Your task to perform on an android device: Go to accessibility settings Image 0: 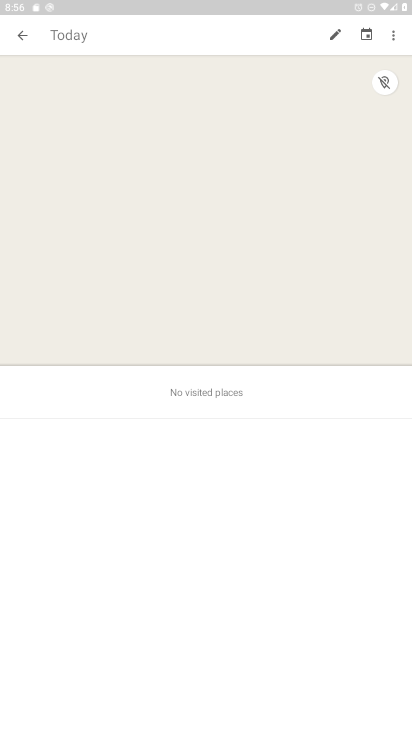
Step 0: press home button
Your task to perform on an android device: Go to accessibility settings Image 1: 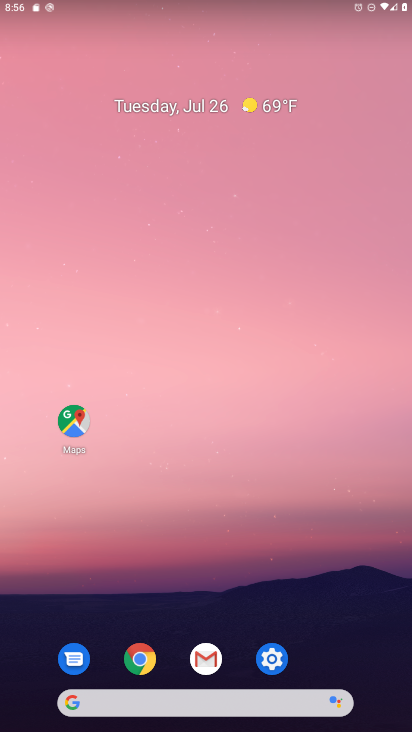
Step 1: drag from (265, 636) to (189, 111)
Your task to perform on an android device: Go to accessibility settings Image 2: 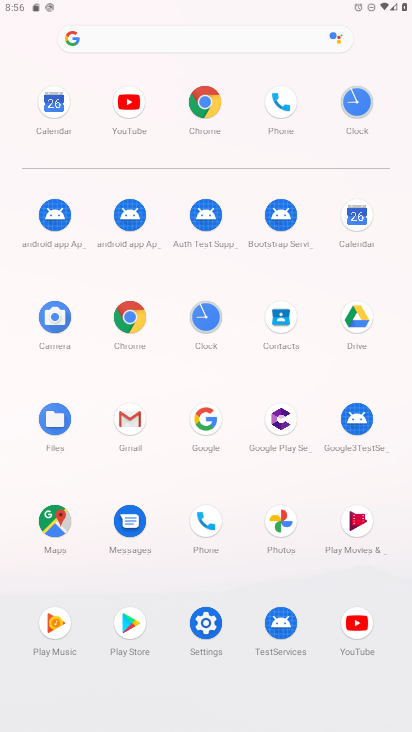
Step 2: click (205, 631)
Your task to perform on an android device: Go to accessibility settings Image 3: 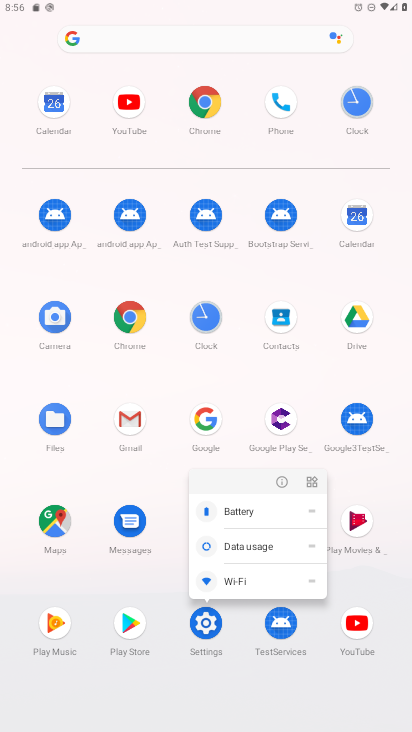
Step 3: click (208, 624)
Your task to perform on an android device: Go to accessibility settings Image 4: 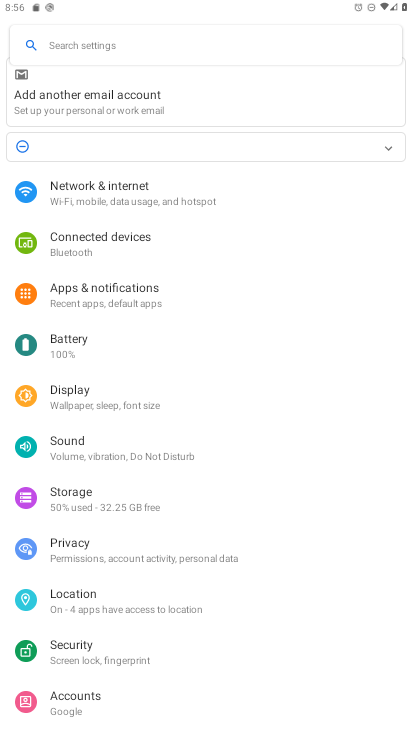
Step 4: click (97, 45)
Your task to perform on an android device: Go to accessibility settings Image 5: 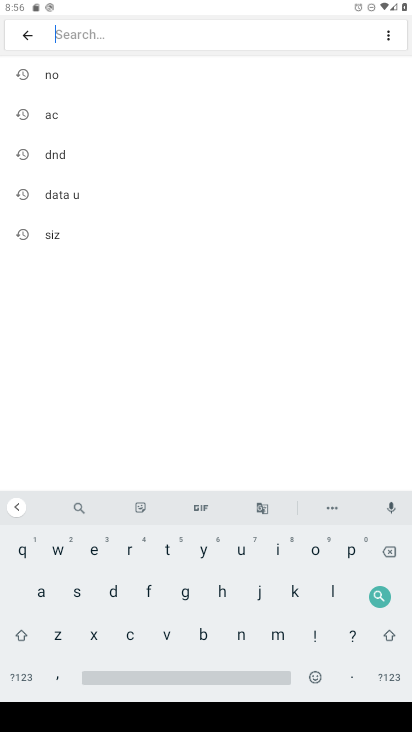
Step 5: click (42, 583)
Your task to perform on an android device: Go to accessibility settings Image 6: 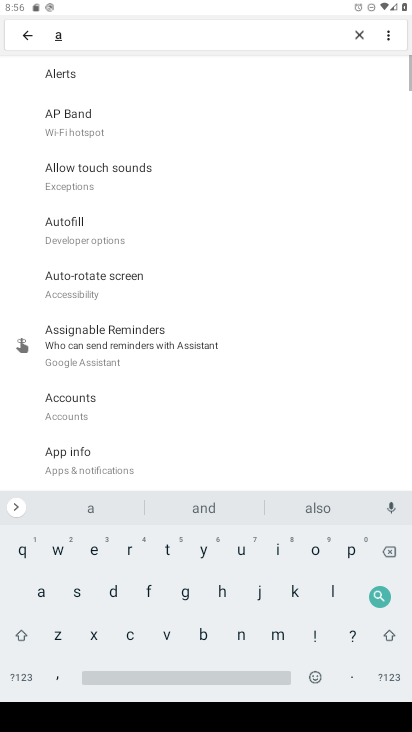
Step 6: click (129, 634)
Your task to perform on an android device: Go to accessibility settings Image 7: 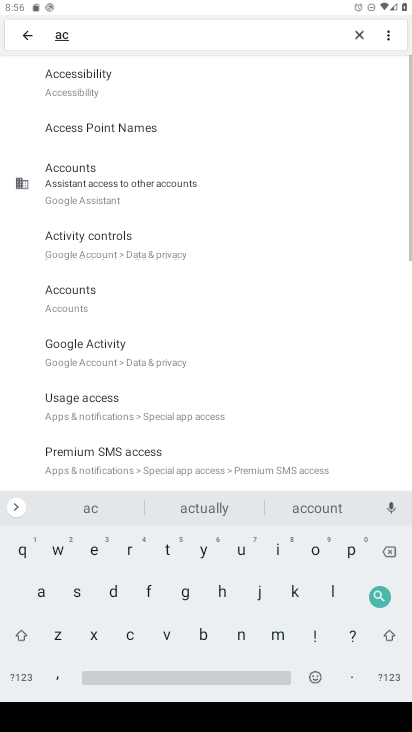
Step 7: click (99, 80)
Your task to perform on an android device: Go to accessibility settings Image 8: 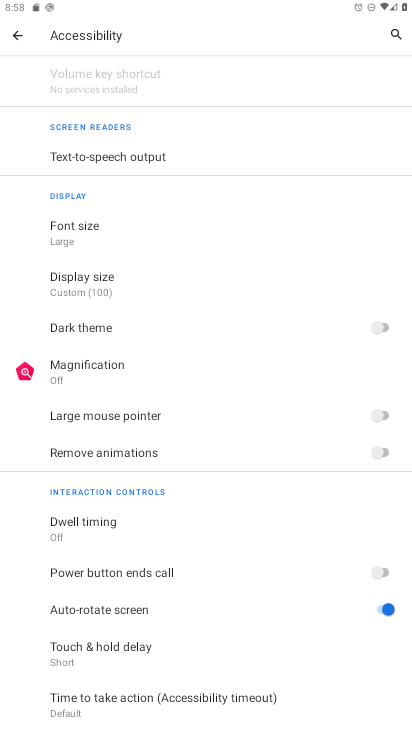
Step 8: task complete